Your task to perform on an android device: change the upload size in google photos Image 0: 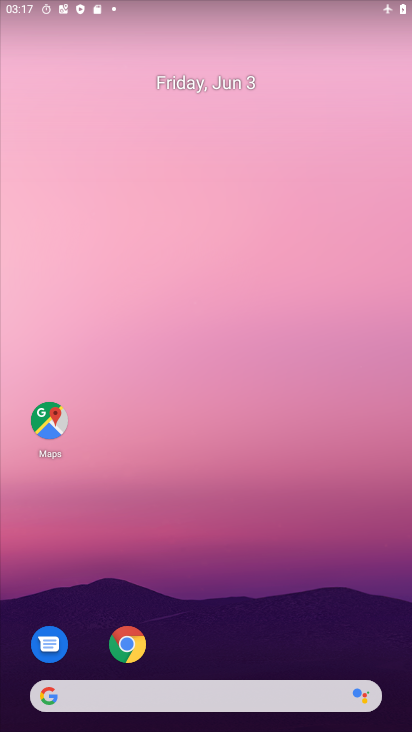
Step 0: drag from (197, 636) to (244, 123)
Your task to perform on an android device: change the upload size in google photos Image 1: 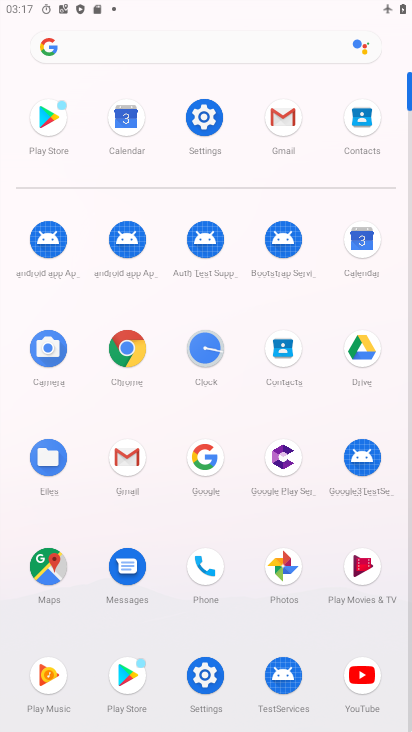
Step 1: click (281, 566)
Your task to perform on an android device: change the upload size in google photos Image 2: 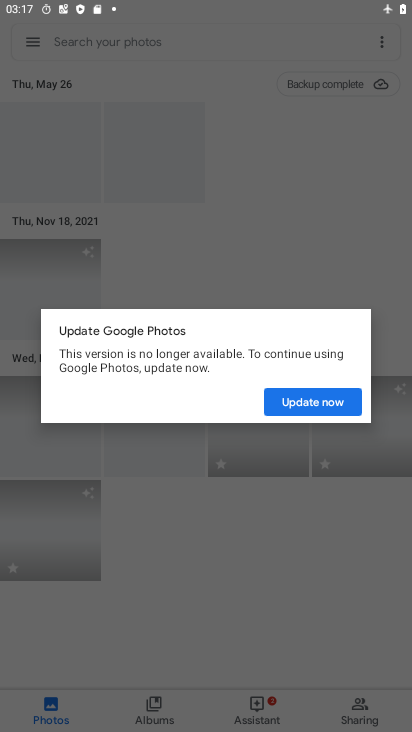
Step 2: click (331, 396)
Your task to perform on an android device: change the upload size in google photos Image 3: 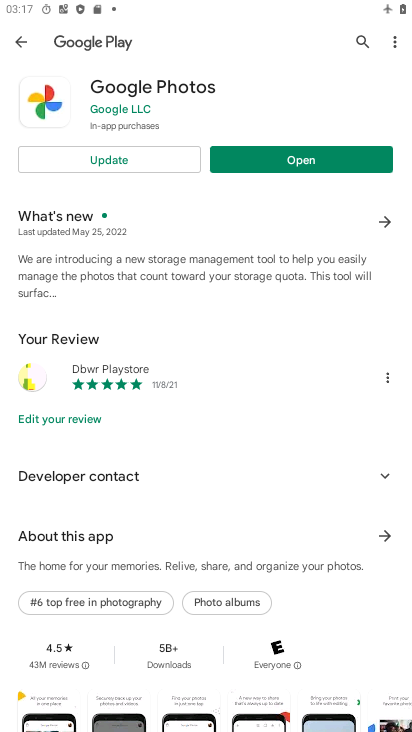
Step 3: press back button
Your task to perform on an android device: change the upload size in google photos Image 4: 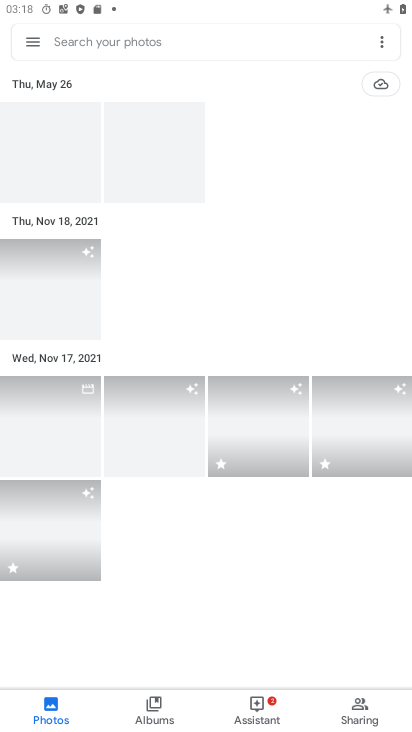
Step 4: click (27, 40)
Your task to perform on an android device: change the upload size in google photos Image 5: 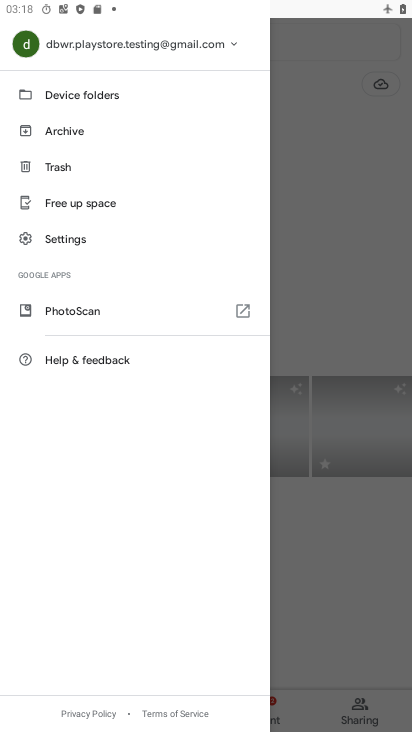
Step 5: click (84, 249)
Your task to perform on an android device: change the upload size in google photos Image 6: 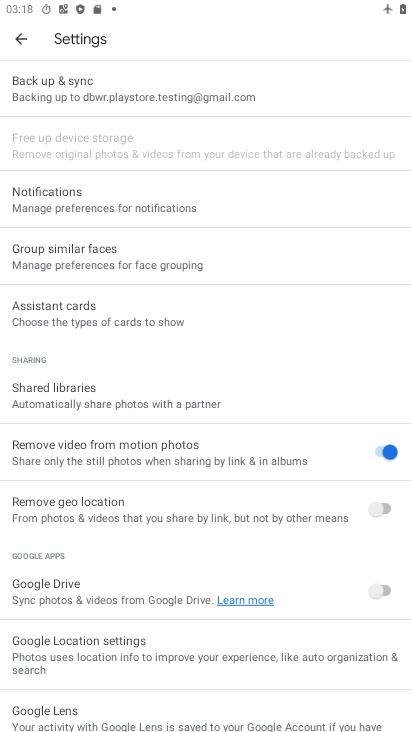
Step 6: click (112, 100)
Your task to perform on an android device: change the upload size in google photos Image 7: 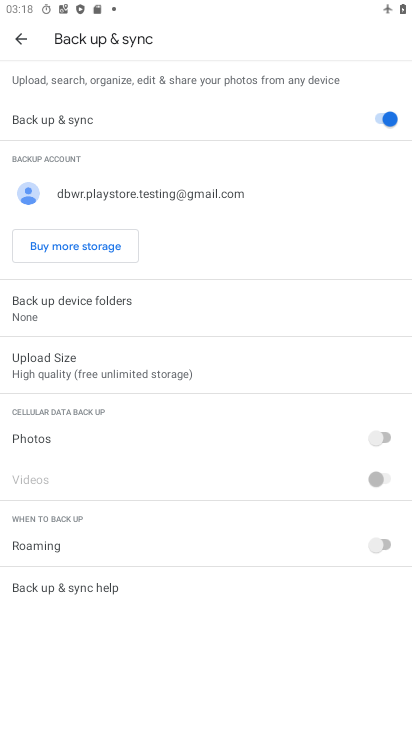
Step 7: click (125, 366)
Your task to perform on an android device: change the upload size in google photos Image 8: 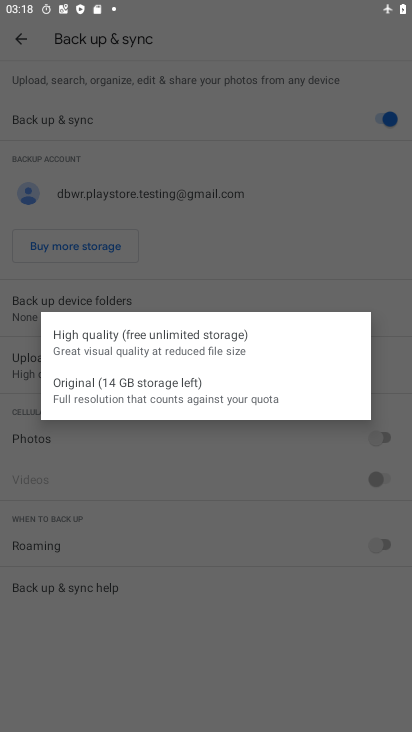
Step 8: click (139, 384)
Your task to perform on an android device: change the upload size in google photos Image 9: 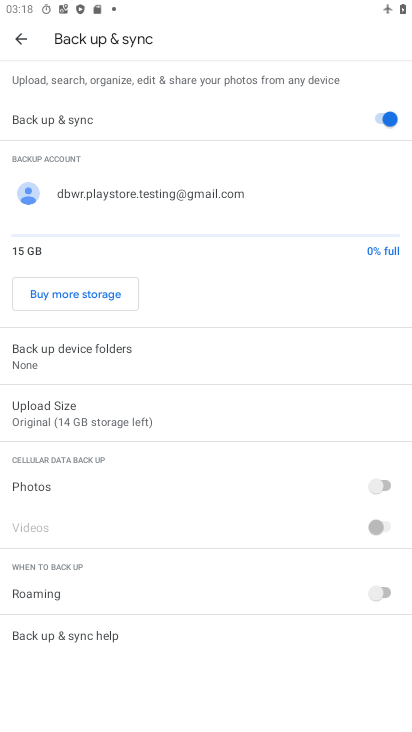
Step 9: task complete